Your task to perform on an android device: open app "eBay: The shopping marketplace" (install if not already installed) and go to login screen Image 0: 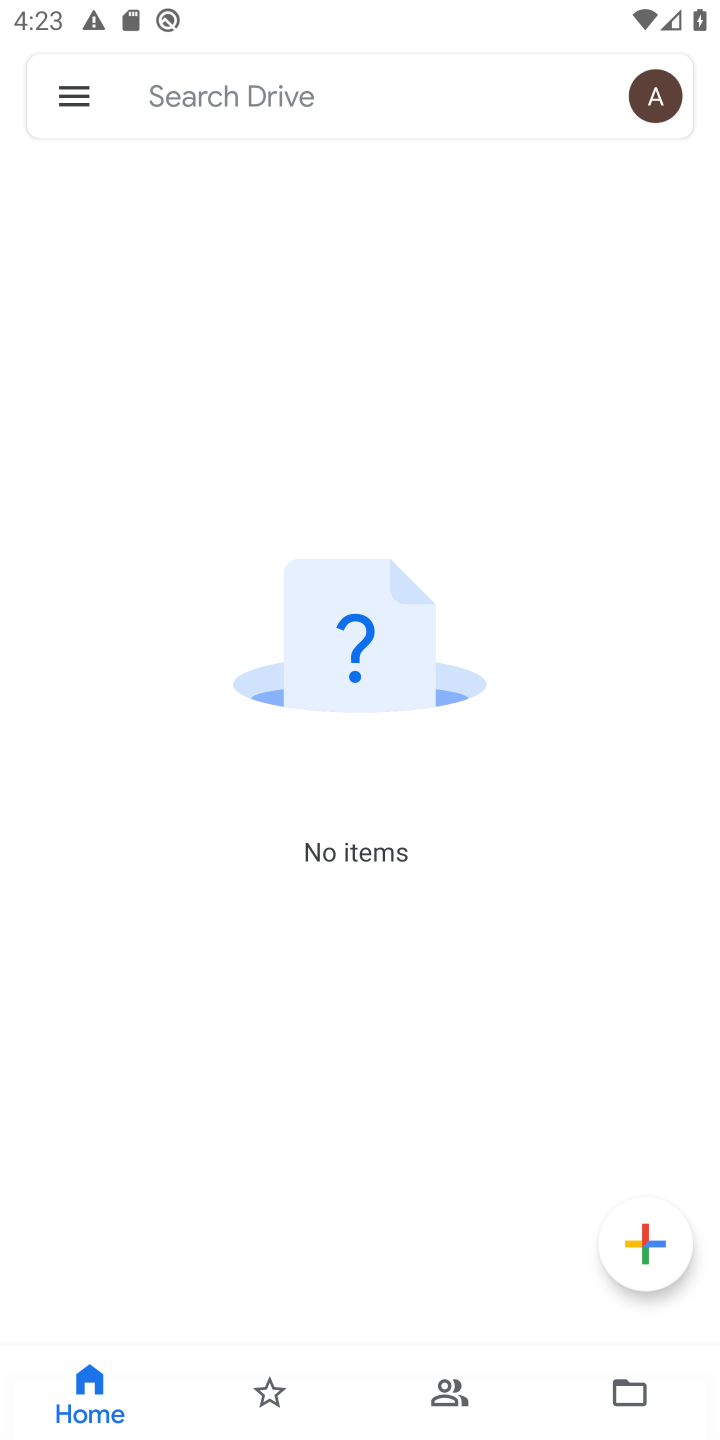
Step 0: press home button
Your task to perform on an android device: open app "eBay: The shopping marketplace" (install if not already installed) and go to login screen Image 1: 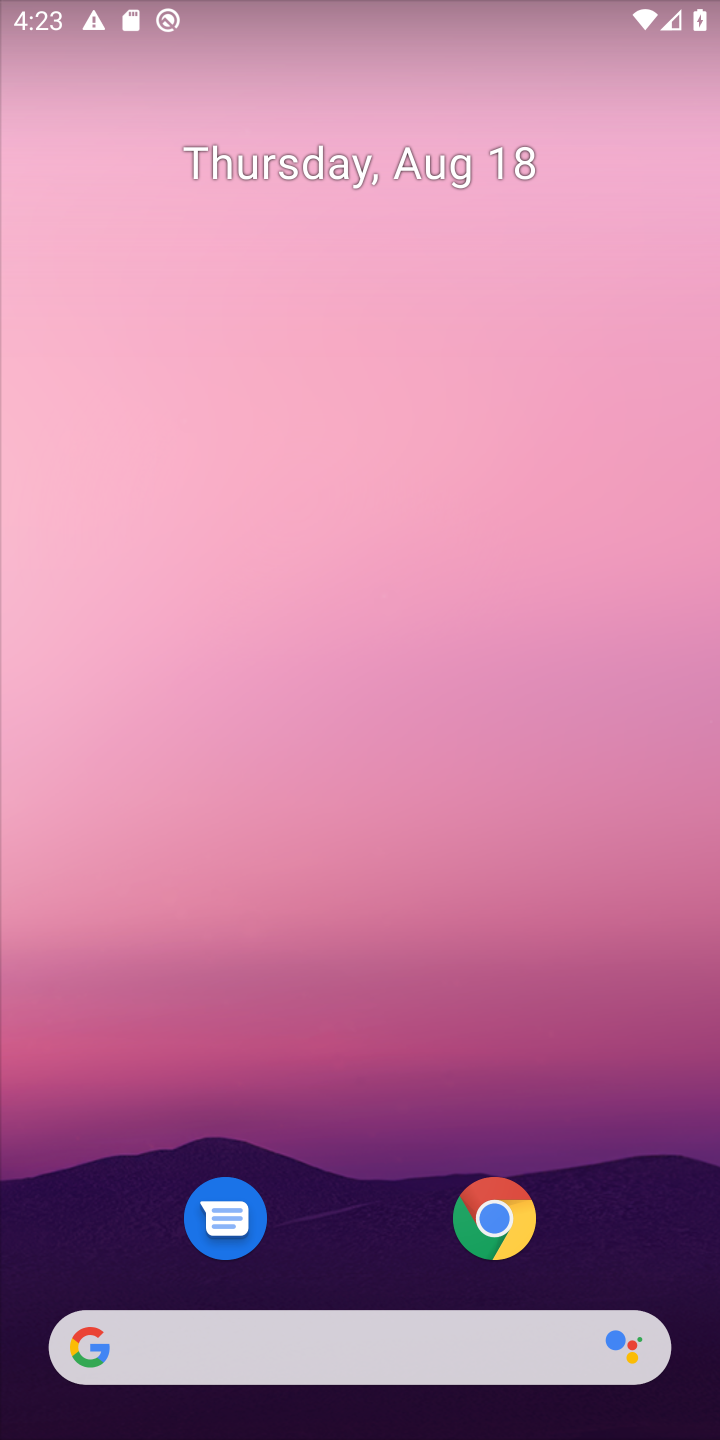
Step 1: drag from (404, 1158) to (456, 350)
Your task to perform on an android device: open app "eBay: The shopping marketplace" (install if not already installed) and go to login screen Image 2: 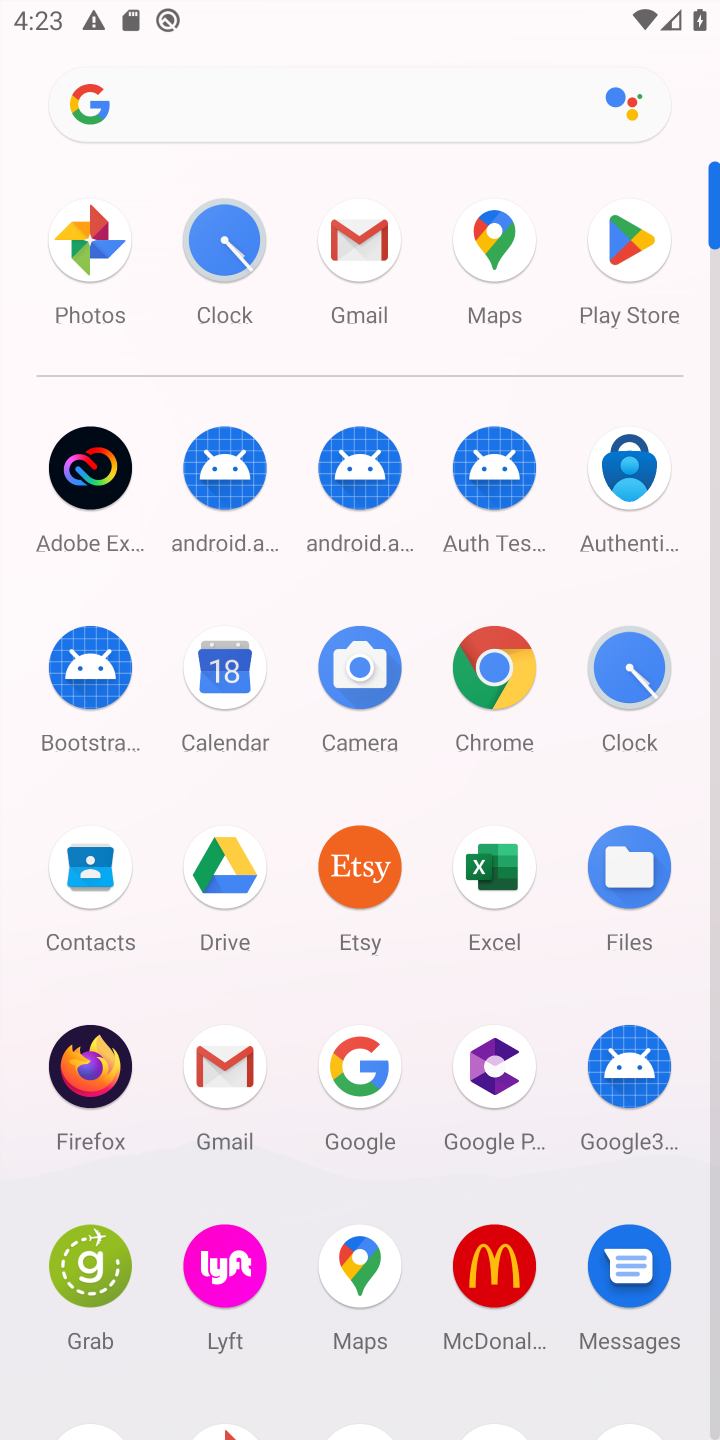
Step 2: click (601, 223)
Your task to perform on an android device: open app "eBay: The shopping marketplace" (install if not already installed) and go to login screen Image 3: 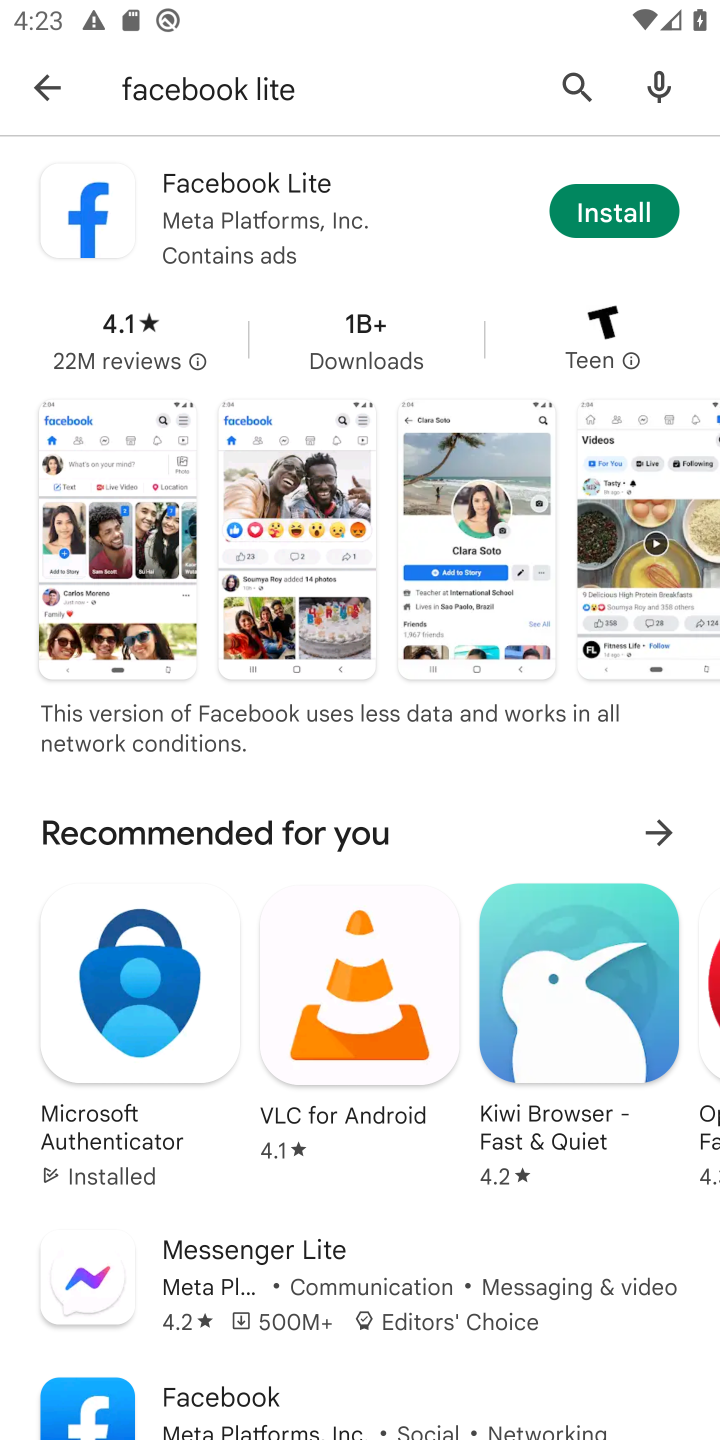
Step 3: click (565, 80)
Your task to perform on an android device: open app "eBay: The shopping marketplace" (install if not already installed) and go to login screen Image 4: 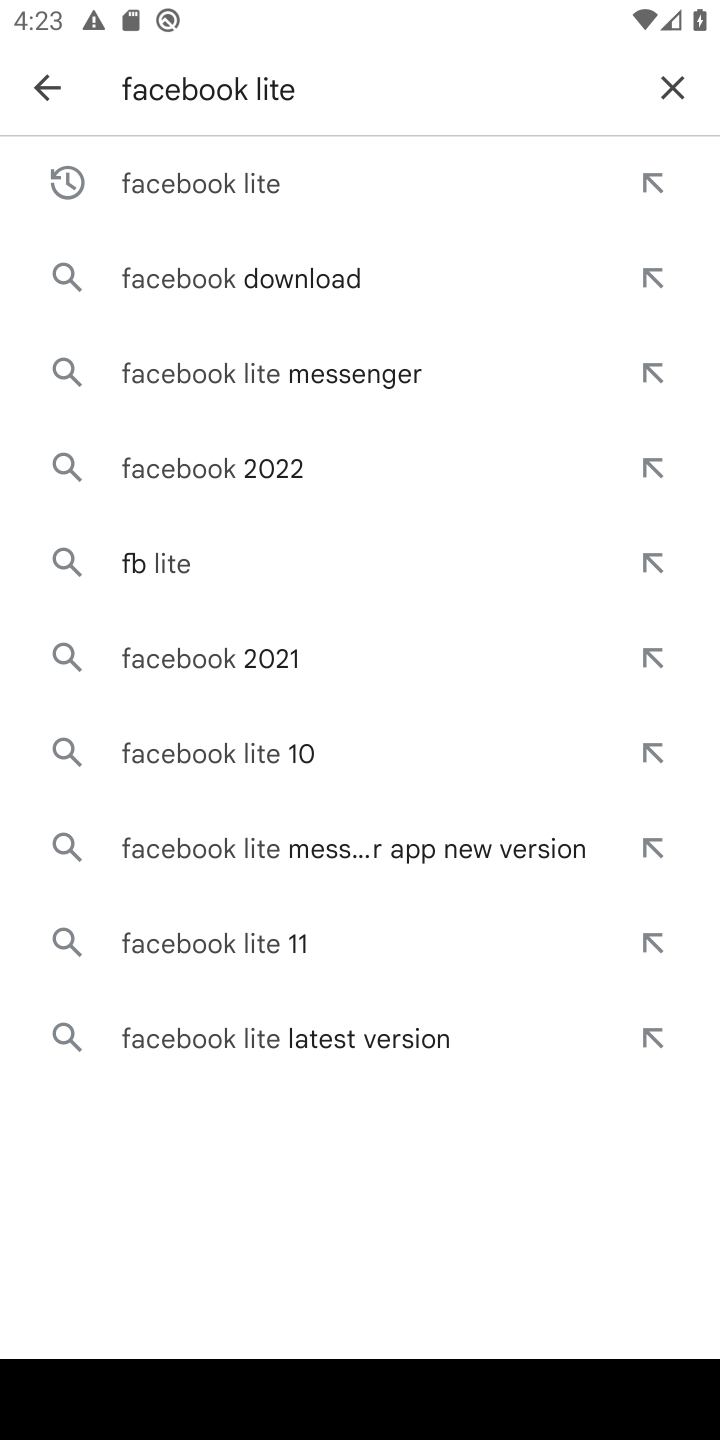
Step 4: click (673, 89)
Your task to perform on an android device: open app "eBay: The shopping marketplace" (install if not already installed) and go to login screen Image 5: 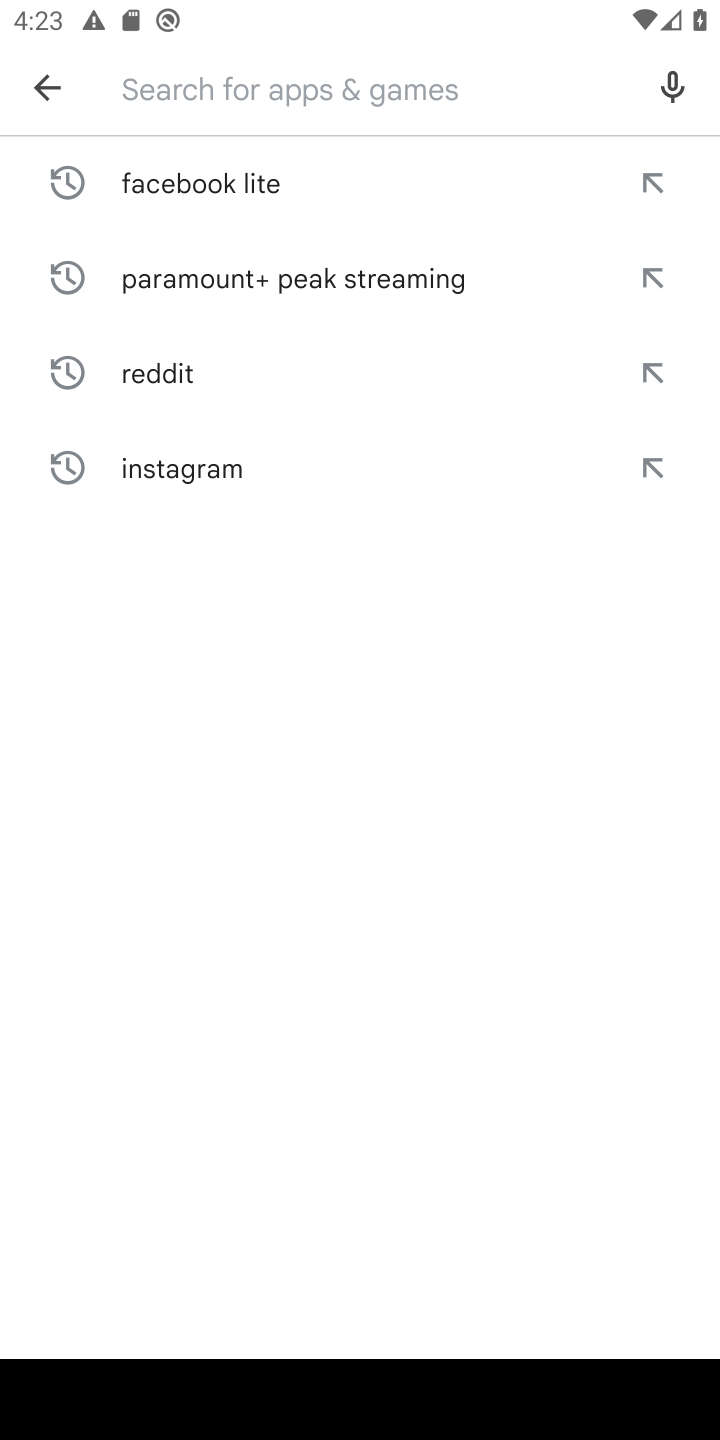
Step 5: type "eBay: The shopping marketplace"
Your task to perform on an android device: open app "eBay: The shopping marketplace" (install if not already installed) and go to login screen Image 6: 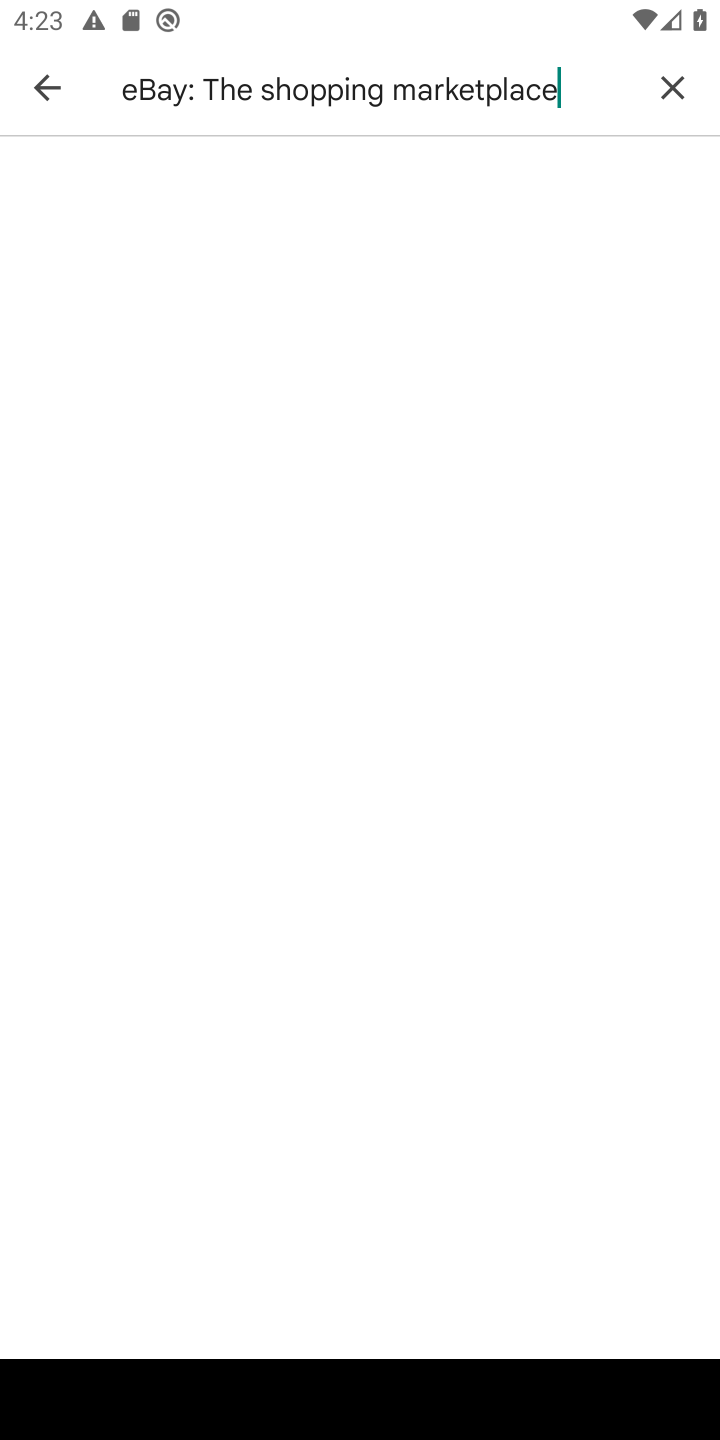
Step 6: type ""
Your task to perform on an android device: open app "eBay: The shopping marketplace" (install if not already installed) and go to login screen Image 7: 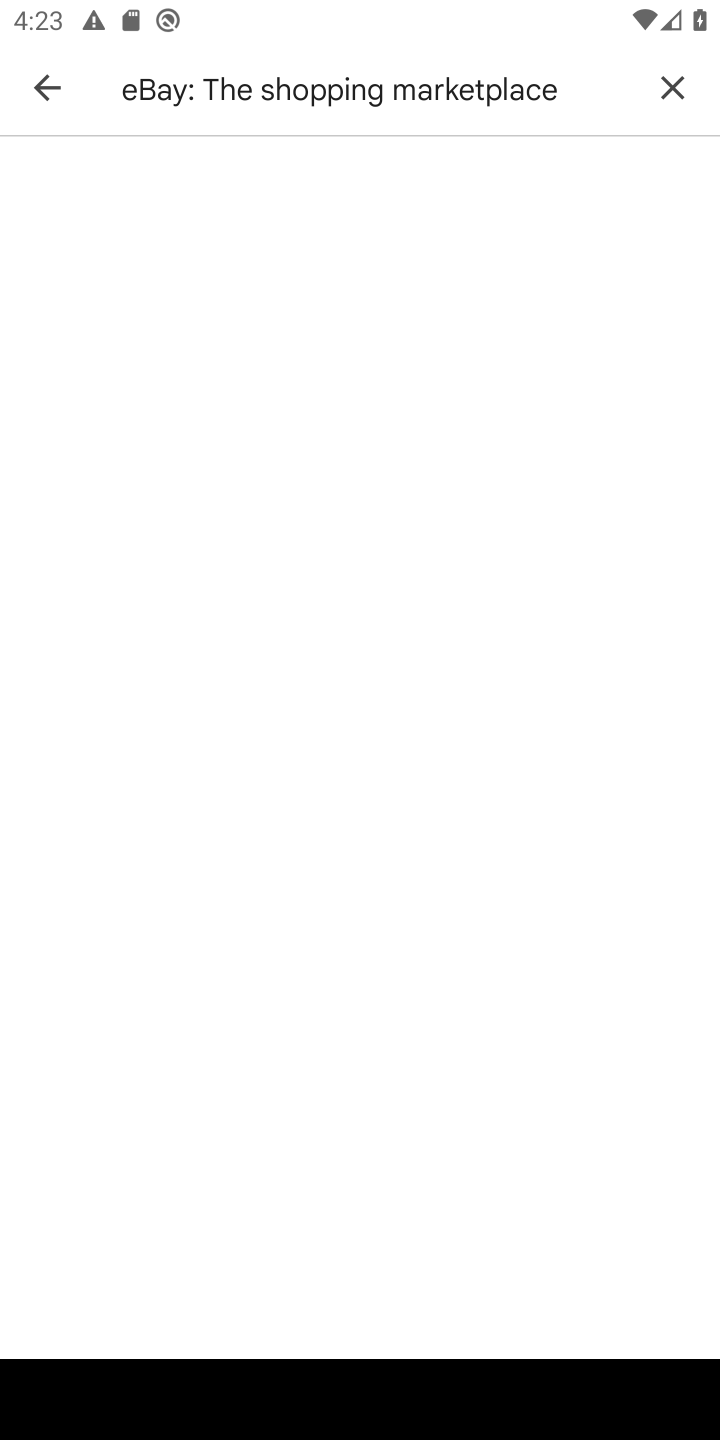
Step 7: task complete